Your task to perform on an android device: change notifications settings Image 0: 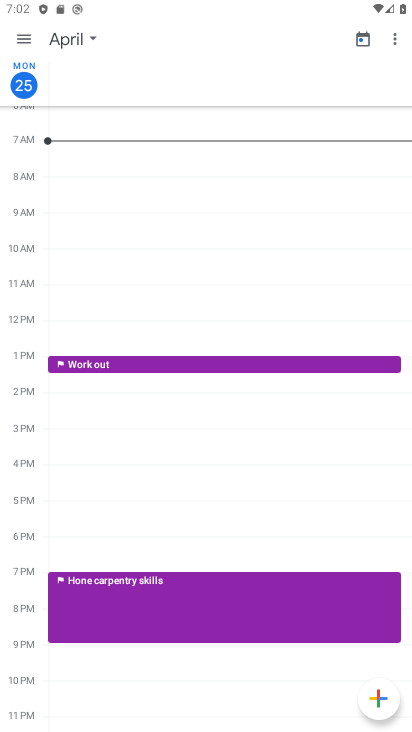
Step 0: press home button
Your task to perform on an android device: change notifications settings Image 1: 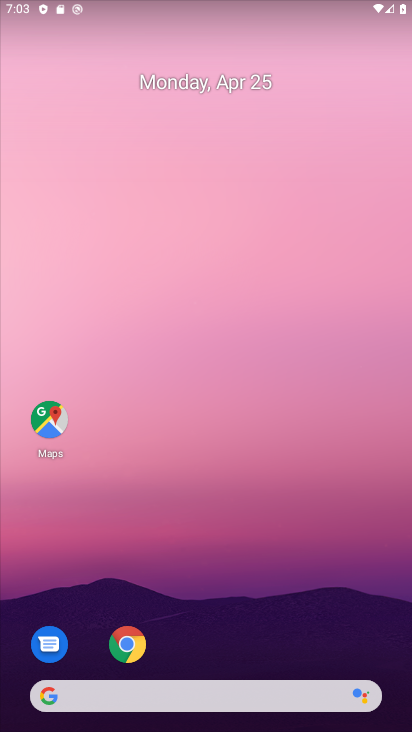
Step 1: drag from (260, 647) to (258, 64)
Your task to perform on an android device: change notifications settings Image 2: 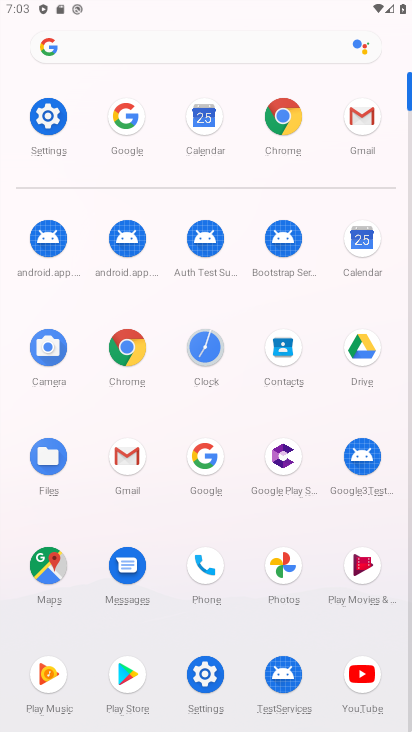
Step 2: click (46, 120)
Your task to perform on an android device: change notifications settings Image 3: 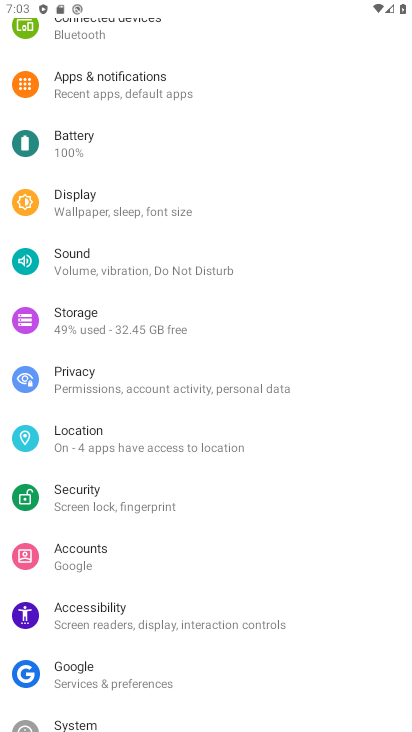
Step 3: click (136, 87)
Your task to perform on an android device: change notifications settings Image 4: 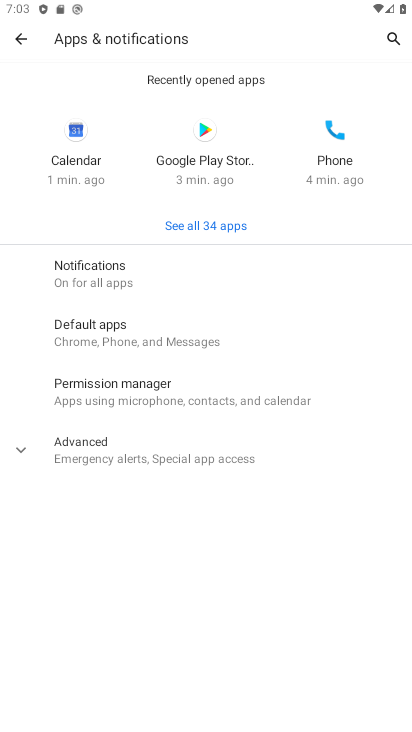
Step 4: click (193, 452)
Your task to perform on an android device: change notifications settings Image 5: 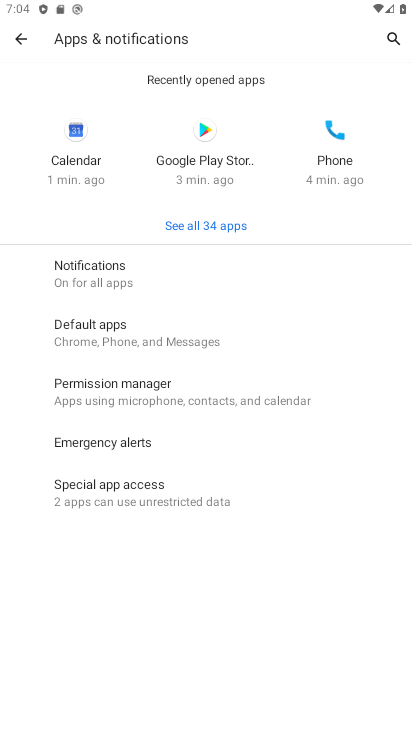
Step 5: click (134, 276)
Your task to perform on an android device: change notifications settings Image 6: 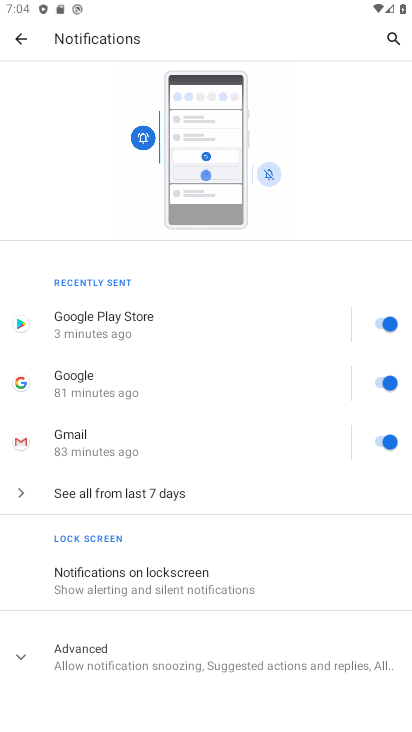
Step 6: click (376, 385)
Your task to perform on an android device: change notifications settings Image 7: 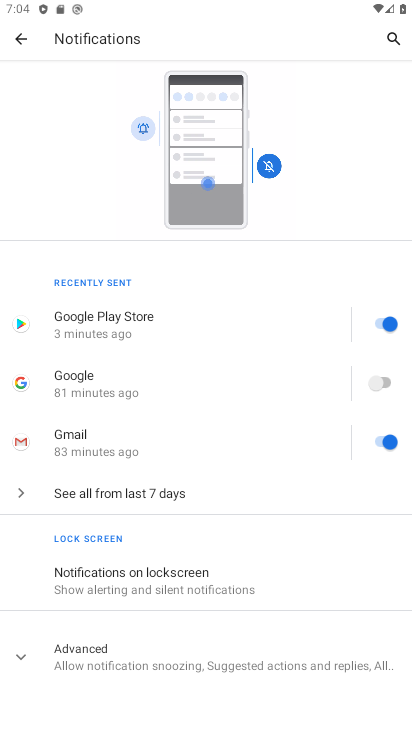
Step 7: task complete